Your task to perform on an android device: snooze an email in the gmail app Image 0: 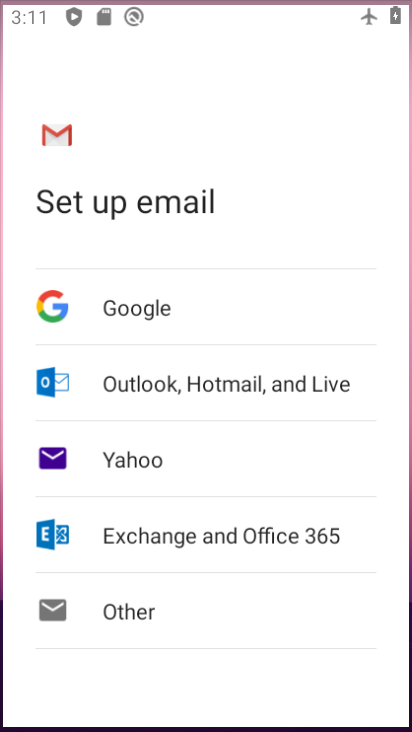
Step 0: drag from (259, 552) to (263, 118)
Your task to perform on an android device: snooze an email in the gmail app Image 1: 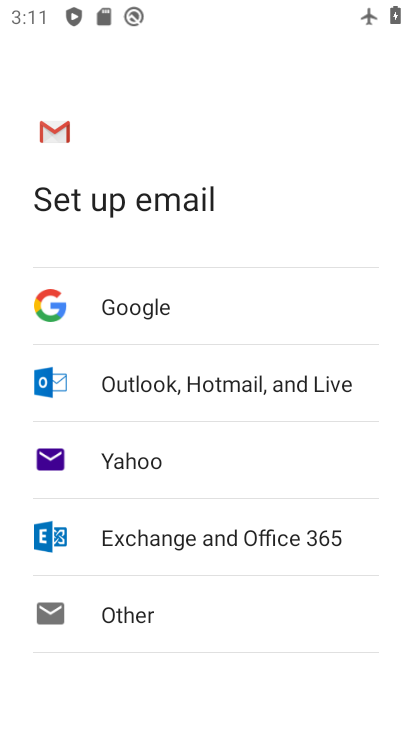
Step 1: press home button
Your task to perform on an android device: snooze an email in the gmail app Image 2: 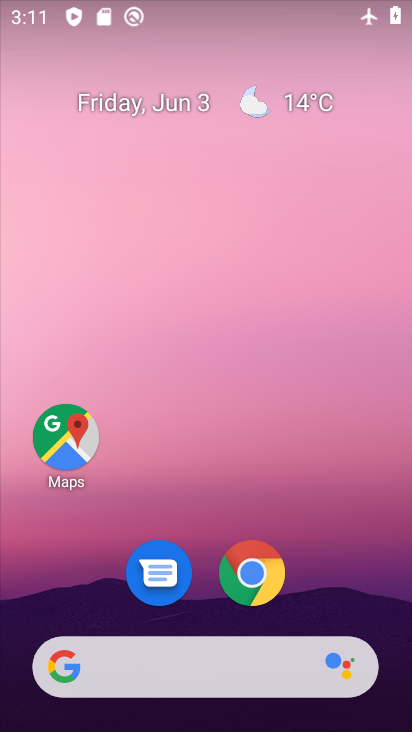
Step 2: drag from (251, 562) to (361, 122)
Your task to perform on an android device: snooze an email in the gmail app Image 3: 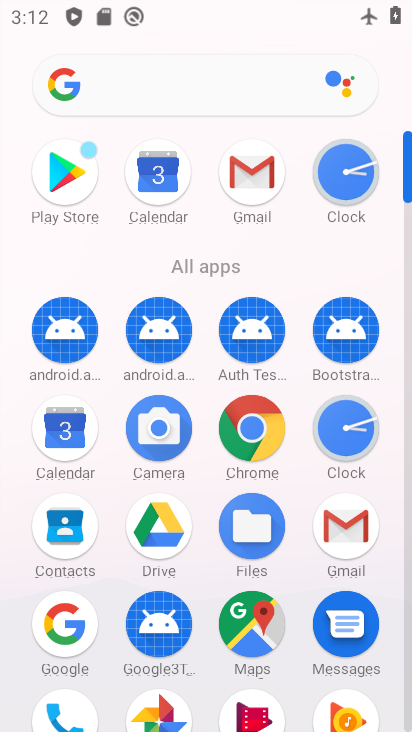
Step 3: click (351, 534)
Your task to perform on an android device: snooze an email in the gmail app Image 4: 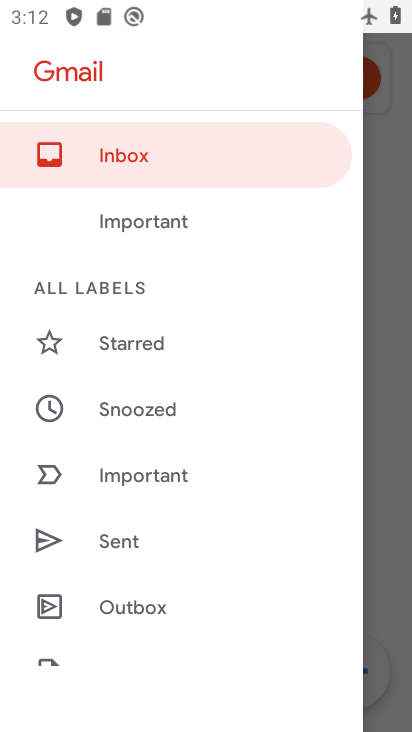
Step 4: drag from (141, 534) to (217, 212)
Your task to perform on an android device: snooze an email in the gmail app Image 5: 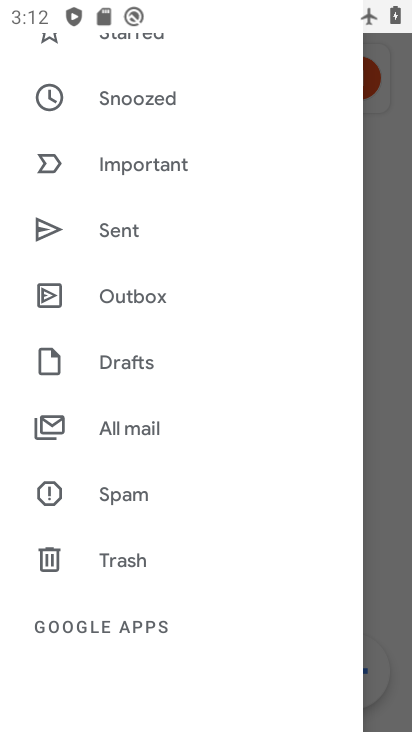
Step 5: drag from (157, 526) to (230, 261)
Your task to perform on an android device: snooze an email in the gmail app Image 6: 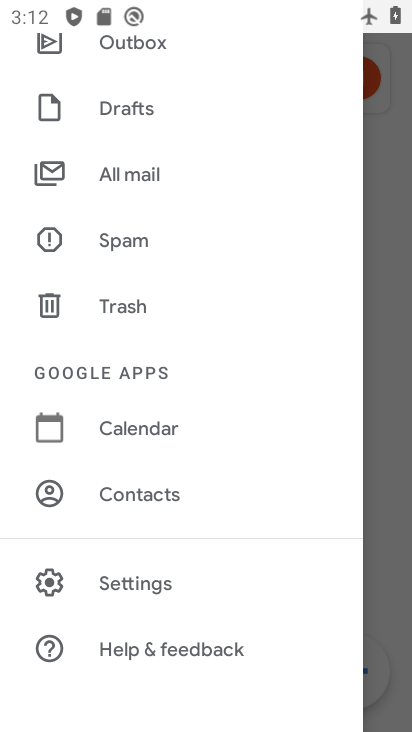
Step 6: click (170, 170)
Your task to perform on an android device: snooze an email in the gmail app Image 7: 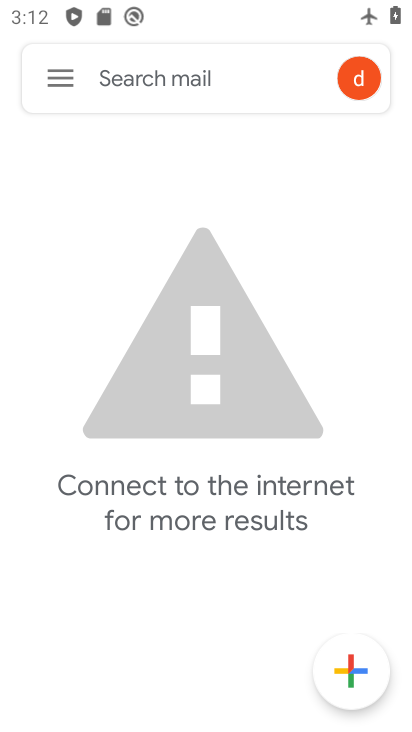
Step 7: click (65, 70)
Your task to perform on an android device: snooze an email in the gmail app Image 8: 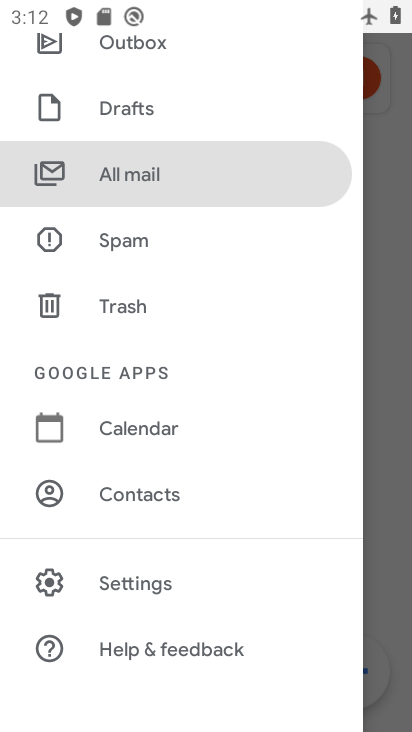
Step 8: click (169, 181)
Your task to perform on an android device: snooze an email in the gmail app Image 9: 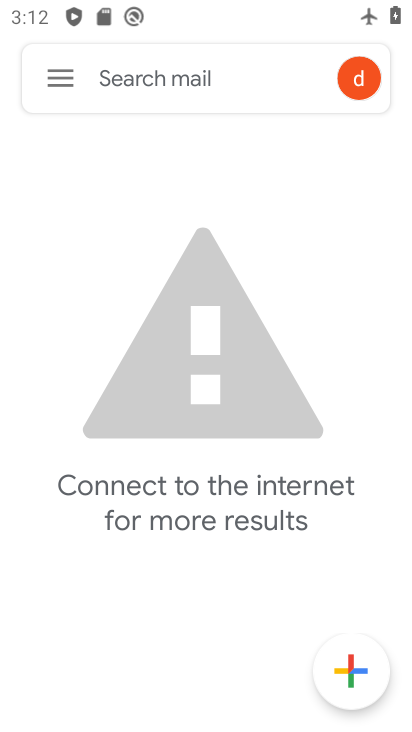
Step 9: task complete